Your task to perform on an android device: Open calendar and show me the fourth week of next month Image 0: 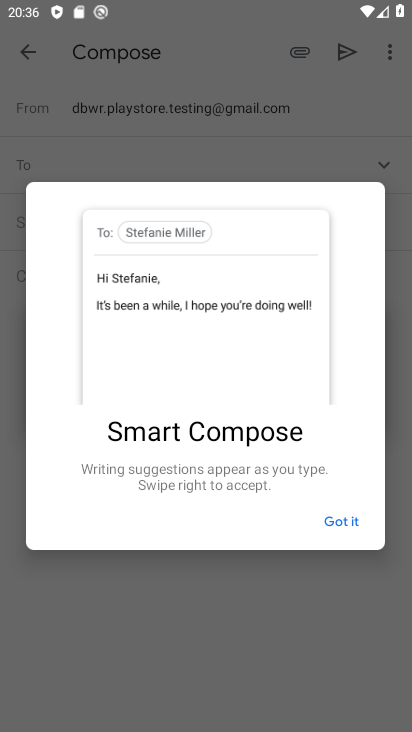
Step 0: press home button
Your task to perform on an android device: Open calendar and show me the fourth week of next month Image 1: 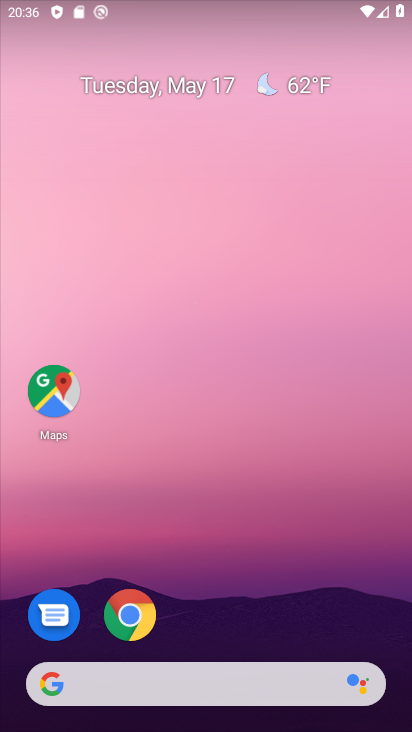
Step 1: drag from (274, 484) to (318, 111)
Your task to perform on an android device: Open calendar and show me the fourth week of next month Image 2: 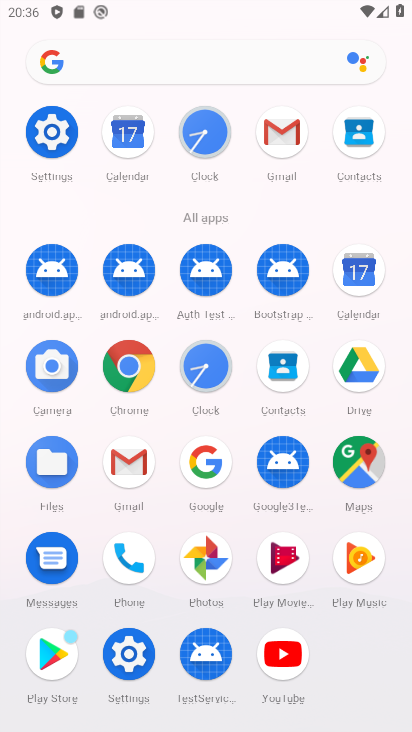
Step 2: click (363, 262)
Your task to perform on an android device: Open calendar and show me the fourth week of next month Image 3: 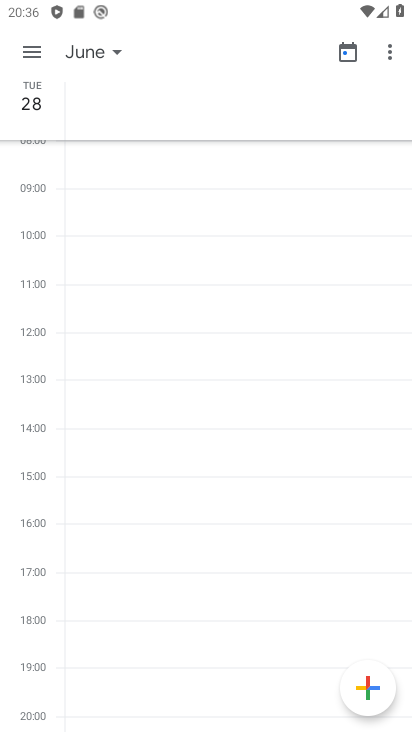
Step 3: click (103, 46)
Your task to perform on an android device: Open calendar and show me the fourth week of next month Image 4: 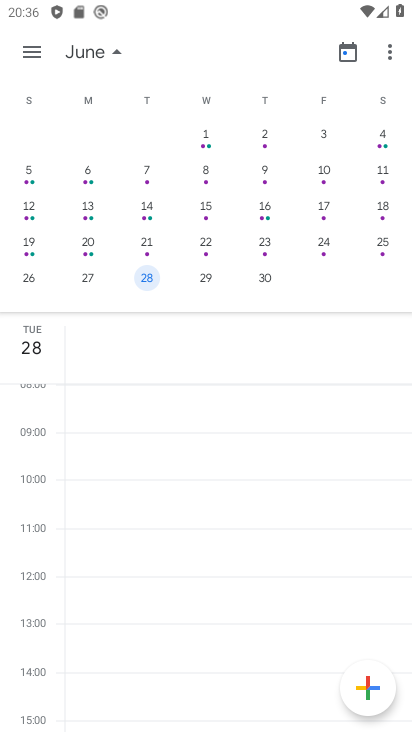
Step 4: click (90, 270)
Your task to perform on an android device: Open calendar and show me the fourth week of next month Image 5: 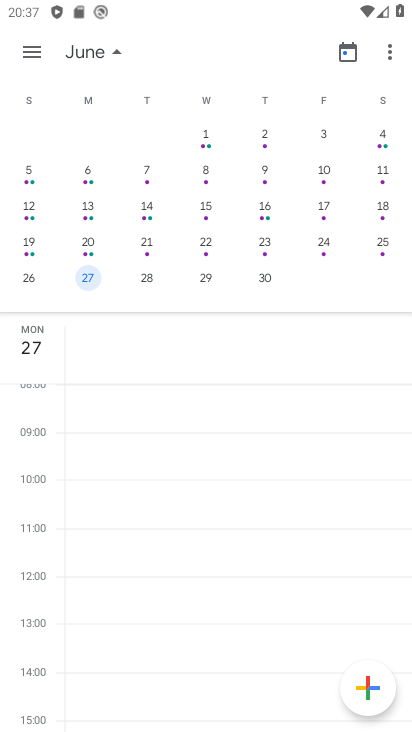
Step 5: task complete